Your task to perform on an android device: What is the recent news? Image 0: 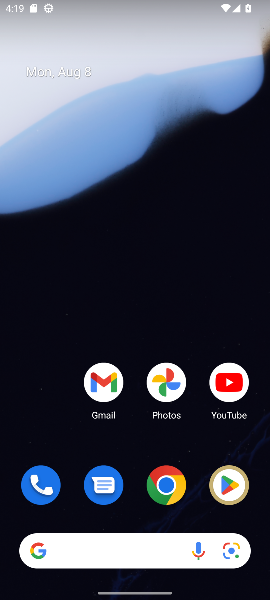
Step 0: click (153, 78)
Your task to perform on an android device: What is the recent news? Image 1: 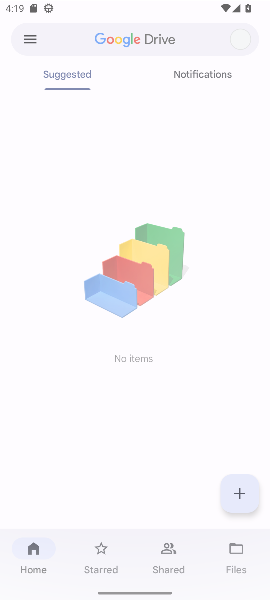
Step 1: drag from (183, 468) to (156, 9)
Your task to perform on an android device: What is the recent news? Image 2: 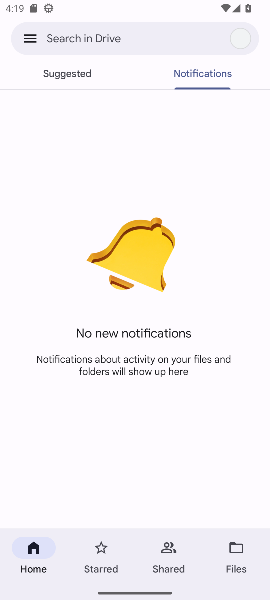
Step 2: press back button
Your task to perform on an android device: What is the recent news? Image 3: 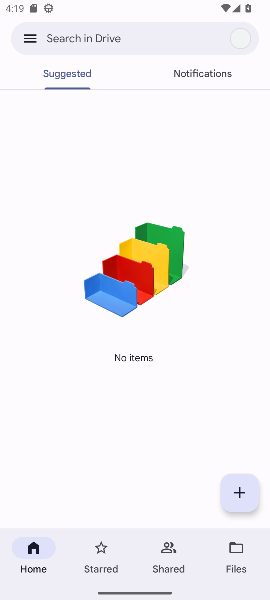
Step 3: press home button
Your task to perform on an android device: What is the recent news? Image 4: 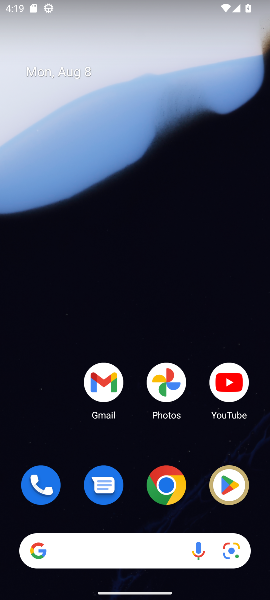
Step 4: drag from (127, 366) to (115, 140)
Your task to perform on an android device: What is the recent news? Image 5: 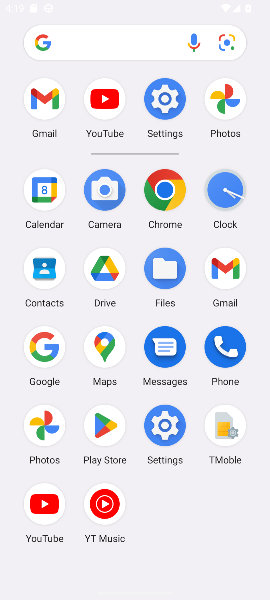
Step 5: drag from (145, 485) to (124, 217)
Your task to perform on an android device: What is the recent news? Image 6: 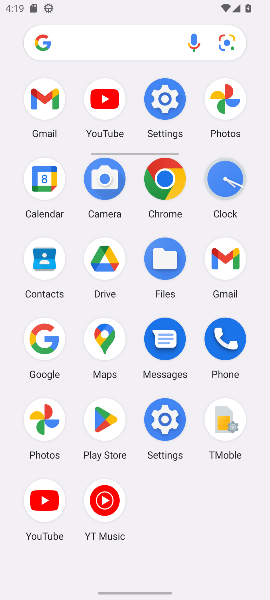
Step 6: drag from (192, 471) to (180, 187)
Your task to perform on an android device: What is the recent news? Image 7: 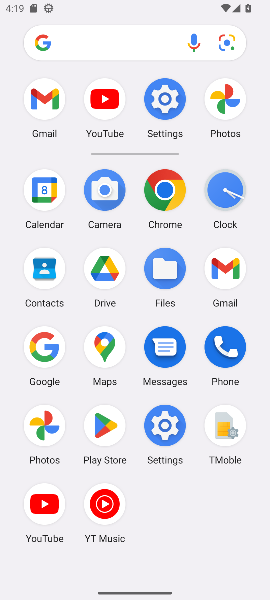
Step 7: click (162, 197)
Your task to perform on an android device: What is the recent news? Image 8: 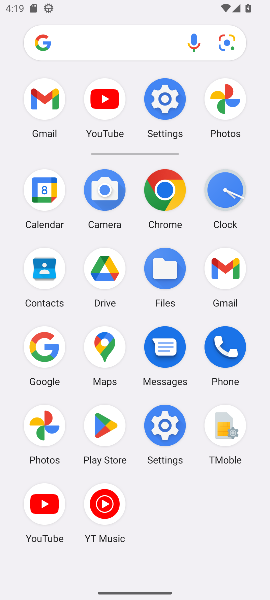
Step 8: click (162, 197)
Your task to perform on an android device: What is the recent news? Image 9: 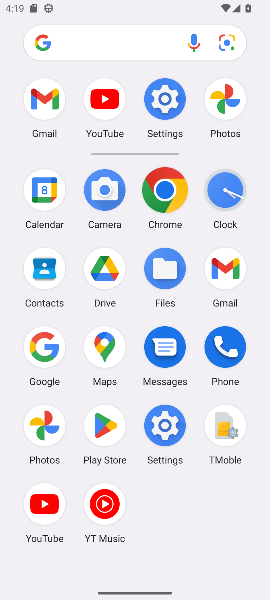
Step 9: click (161, 196)
Your task to perform on an android device: What is the recent news? Image 10: 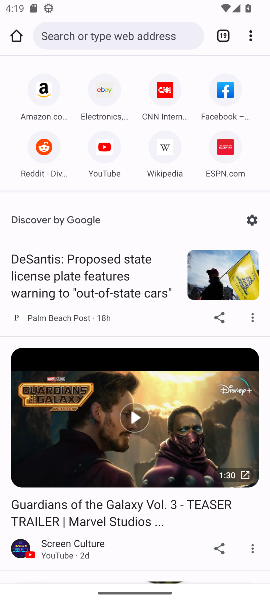
Step 10: click (251, 38)
Your task to perform on an android device: What is the recent news? Image 11: 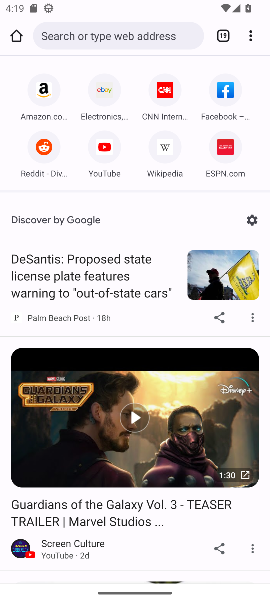
Step 11: task complete